Your task to perform on an android device: change your default location settings in chrome Image 0: 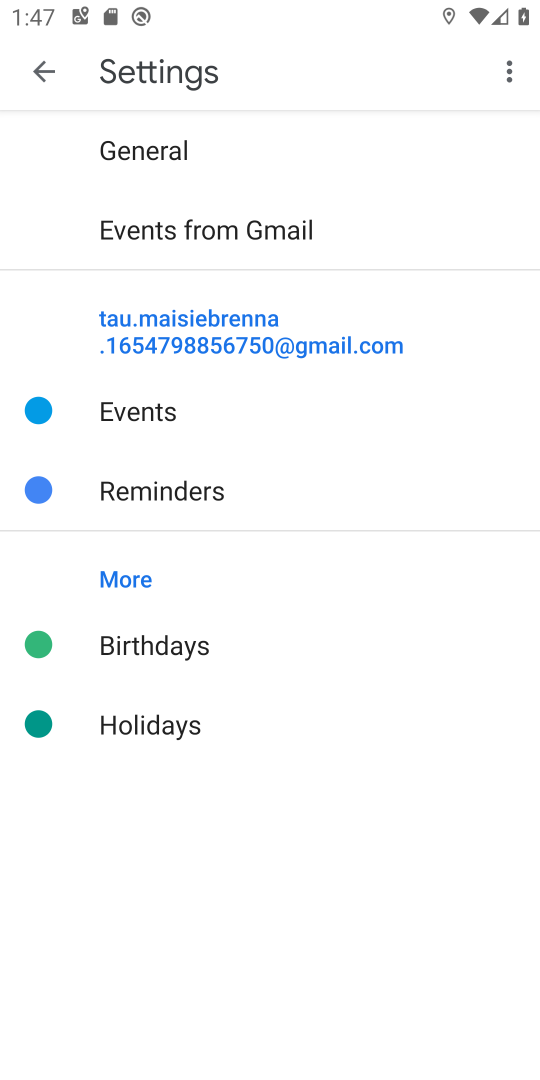
Step 0: press back button
Your task to perform on an android device: change your default location settings in chrome Image 1: 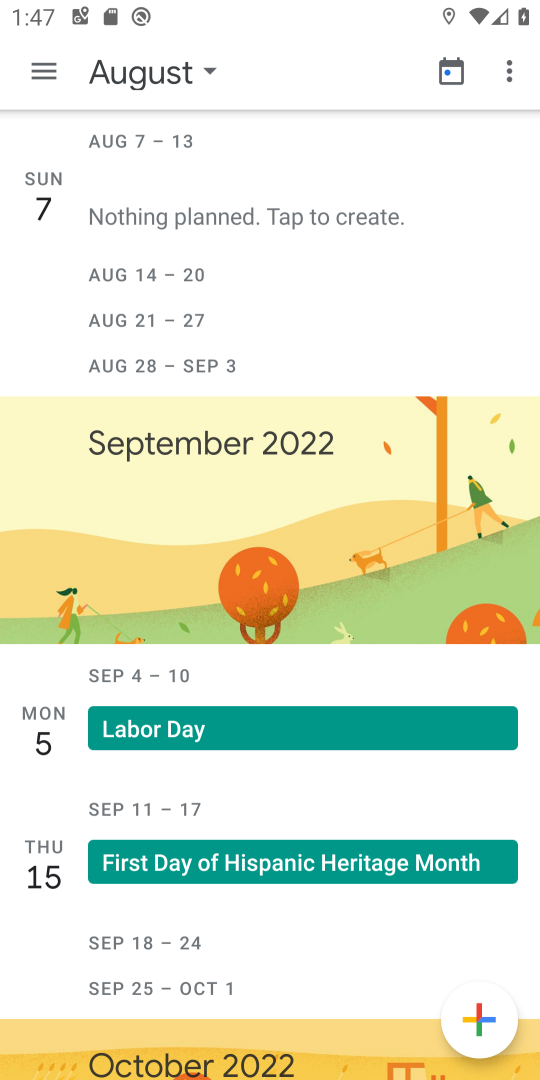
Step 1: press home button
Your task to perform on an android device: change your default location settings in chrome Image 2: 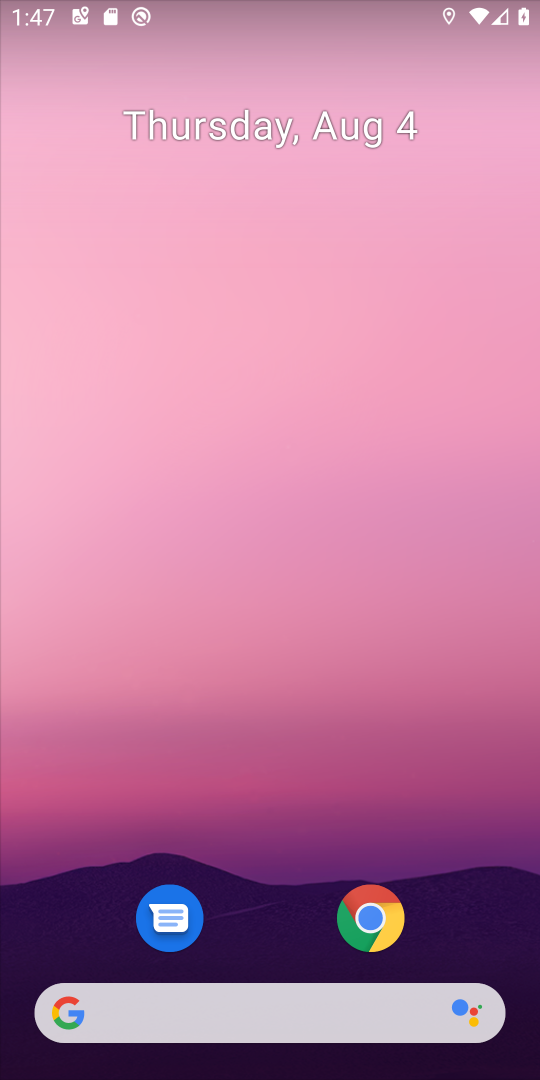
Step 2: click (398, 936)
Your task to perform on an android device: change your default location settings in chrome Image 3: 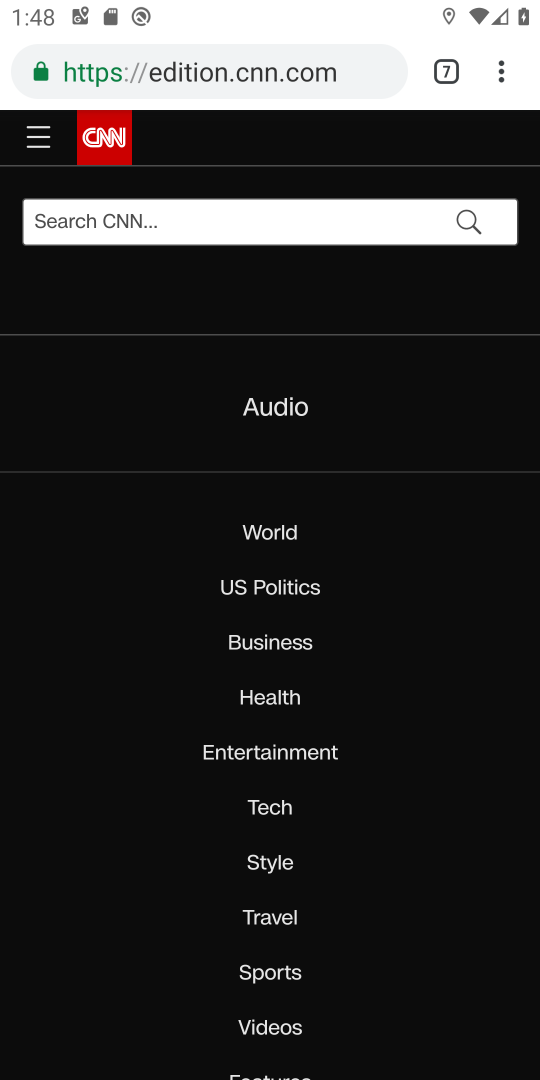
Step 3: click (497, 74)
Your task to perform on an android device: change your default location settings in chrome Image 4: 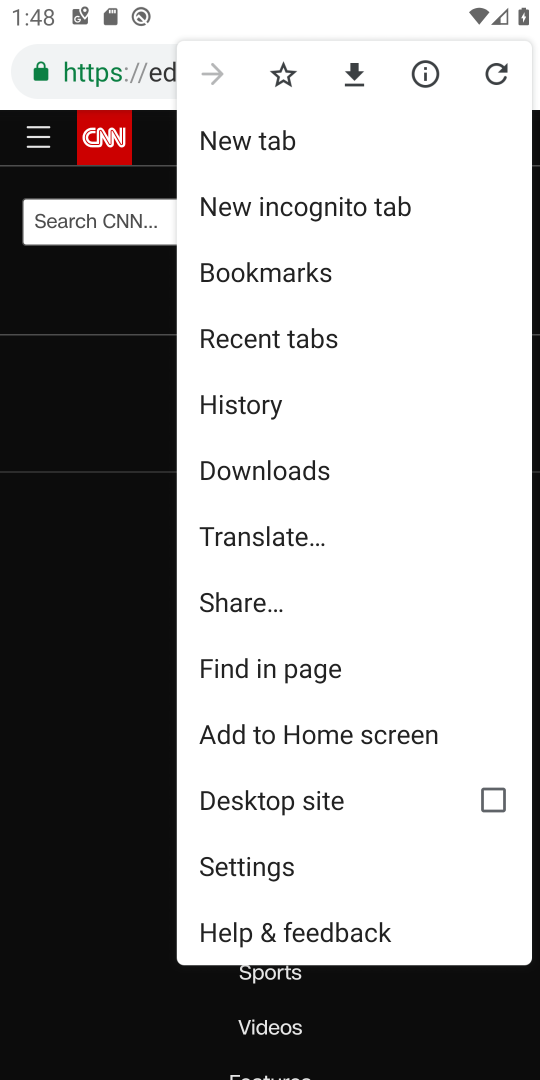
Step 4: click (263, 853)
Your task to perform on an android device: change your default location settings in chrome Image 5: 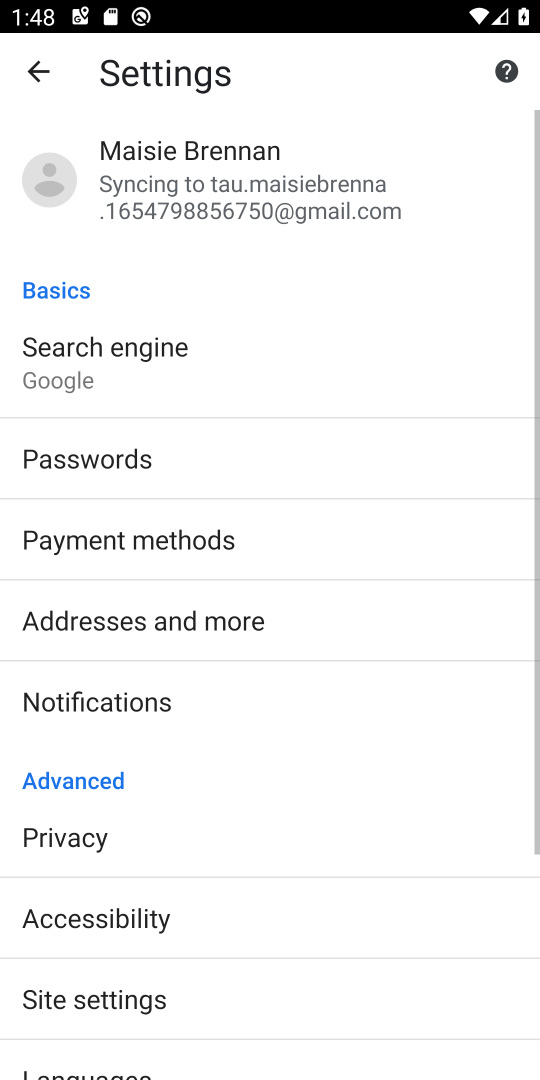
Step 5: drag from (263, 853) to (298, 413)
Your task to perform on an android device: change your default location settings in chrome Image 6: 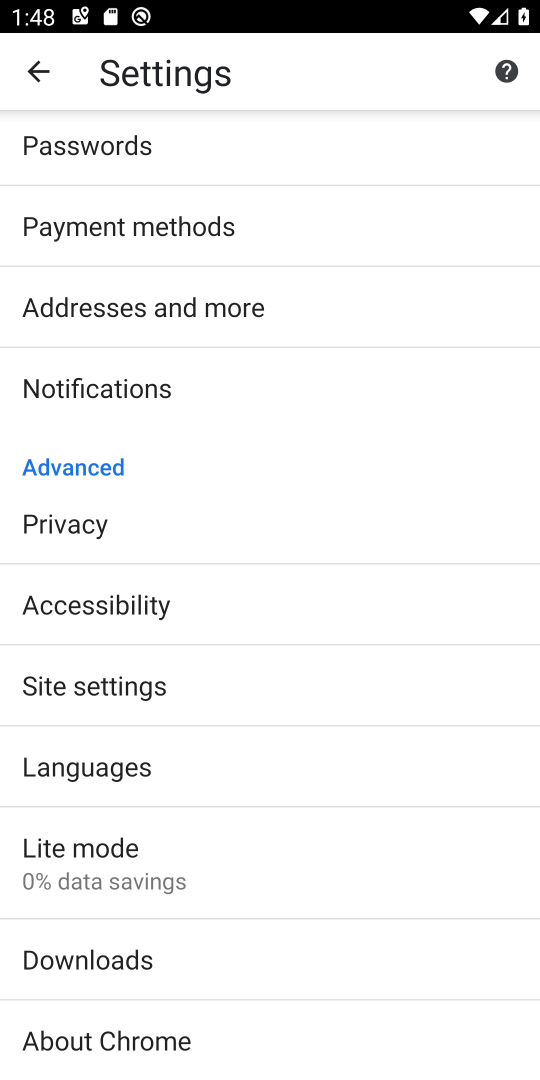
Step 6: click (161, 703)
Your task to perform on an android device: change your default location settings in chrome Image 7: 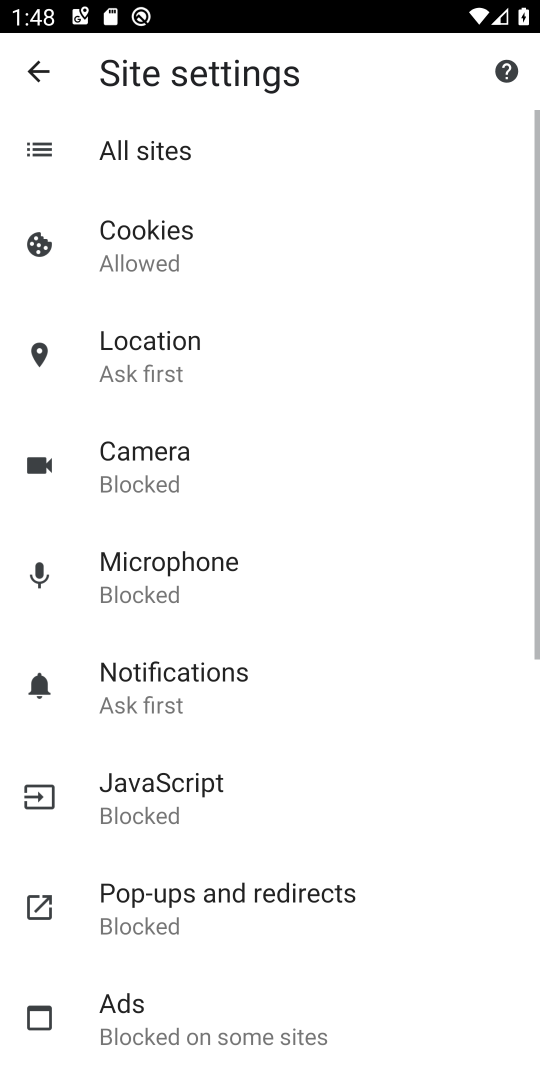
Step 7: click (209, 375)
Your task to perform on an android device: change your default location settings in chrome Image 8: 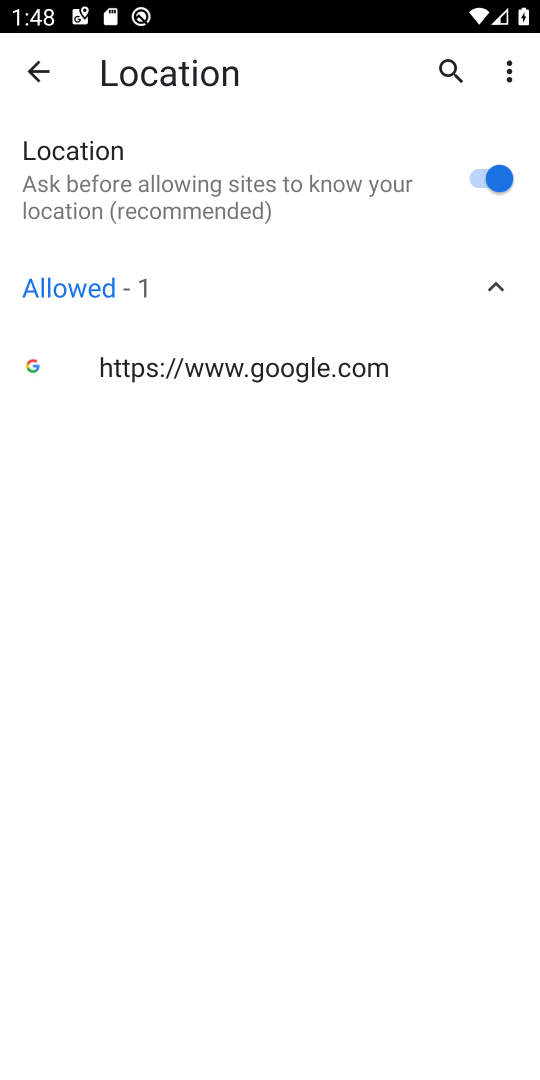
Step 8: click (480, 172)
Your task to perform on an android device: change your default location settings in chrome Image 9: 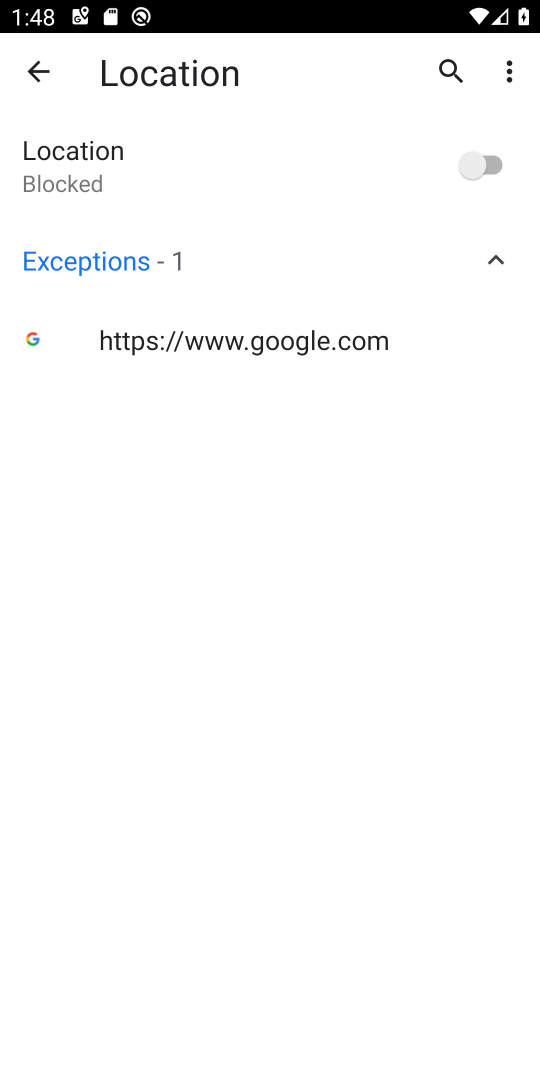
Step 9: task complete